Your task to perform on an android device: toggle improve location accuracy Image 0: 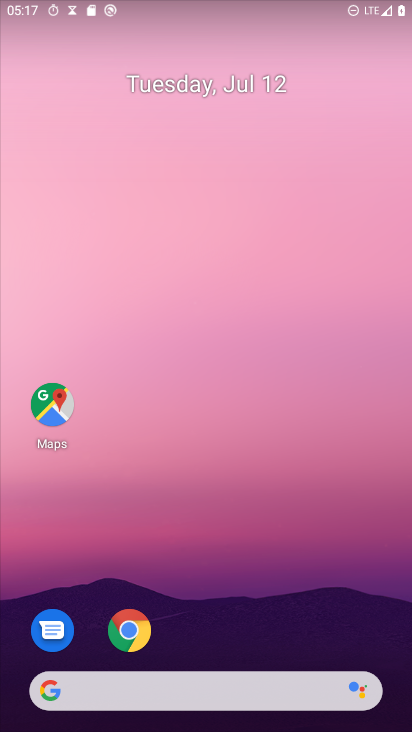
Step 0: drag from (307, 709) to (201, 8)
Your task to perform on an android device: toggle improve location accuracy Image 1: 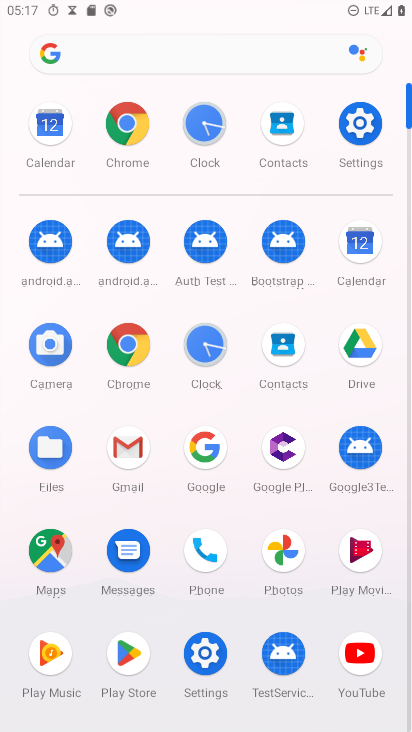
Step 1: click (374, 117)
Your task to perform on an android device: toggle improve location accuracy Image 2: 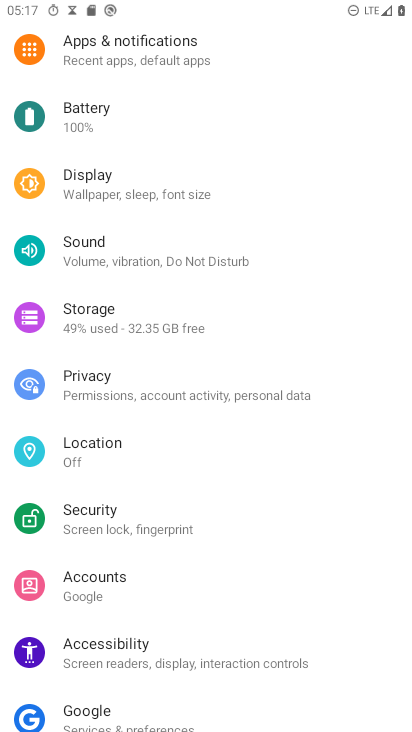
Step 2: click (112, 439)
Your task to perform on an android device: toggle improve location accuracy Image 3: 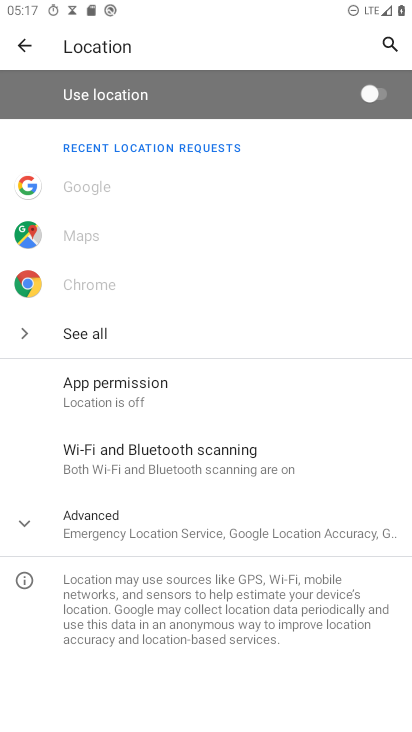
Step 3: click (187, 532)
Your task to perform on an android device: toggle improve location accuracy Image 4: 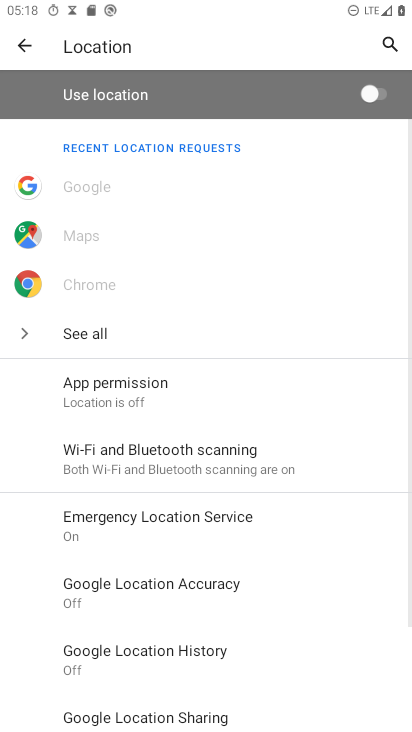
Step 4: click (218, 586)
Your task to perform on an android device: toggle improve location accuracy Image 5: 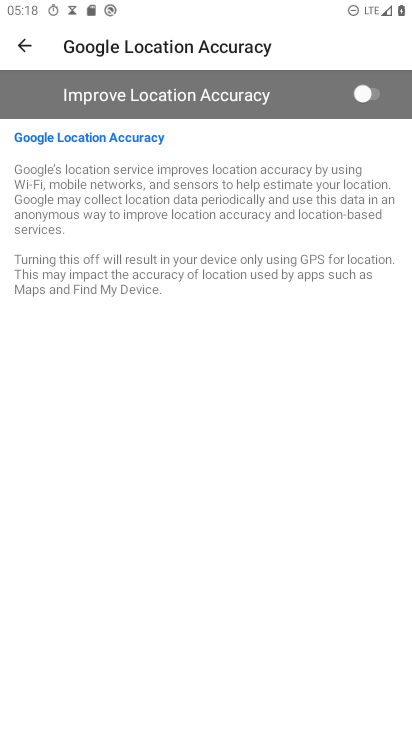
Step 5: click (377, 90)
Your task to perform on an android device: toggle improve location accuracy Image 6: 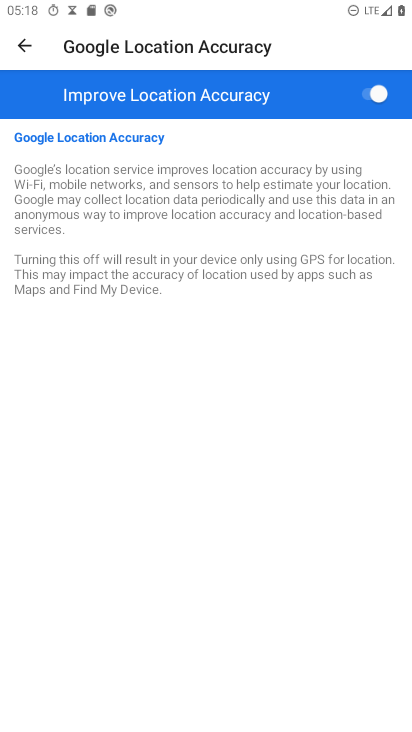
Step 6: task complete